Your task to perform on an android device: Is it going to rain tomorrow? Image 0: 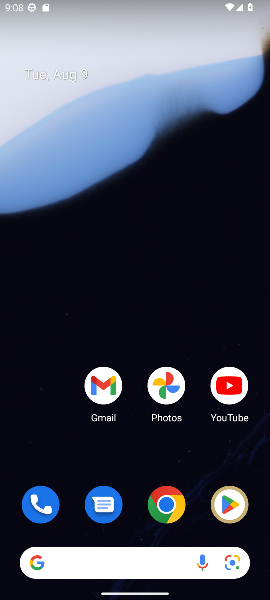
Step 0: drag from (132, 475) to (81, 31)
Your task to perform on an android device: Is it going to rain tomorrow? Image 1: 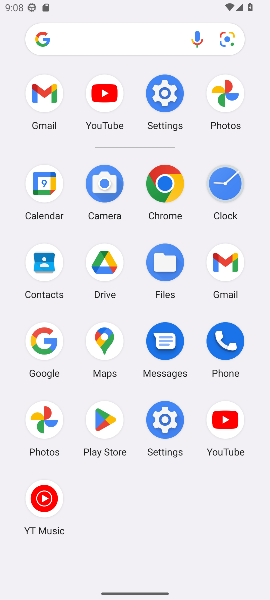
Step 1: click (49, 341)
Your task to perform on an android device: Is it going to rain tomorrow? Image 2: 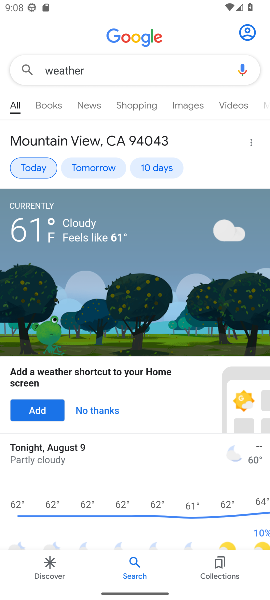
Step 2: click (99, 166)
Your task to perform on an android device: Is it going to rain tomorrow? Image 3: 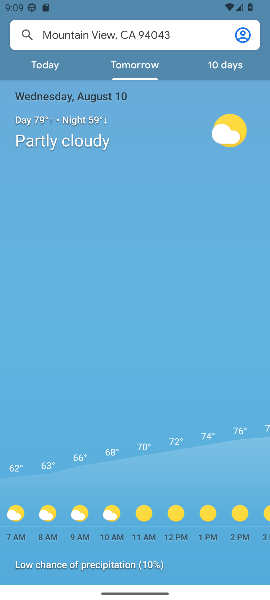
Step 3: task complete